Your task to perform on an android device: visit the assistant section in the google photos Image 0: 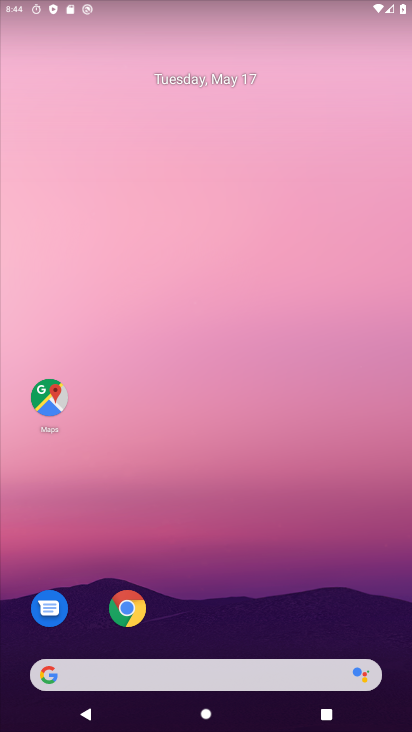
Step 0: drag from (288, 626) to (250, 167)
Your task to perform on an android device: visit the assistant section in the google photos Image 1: 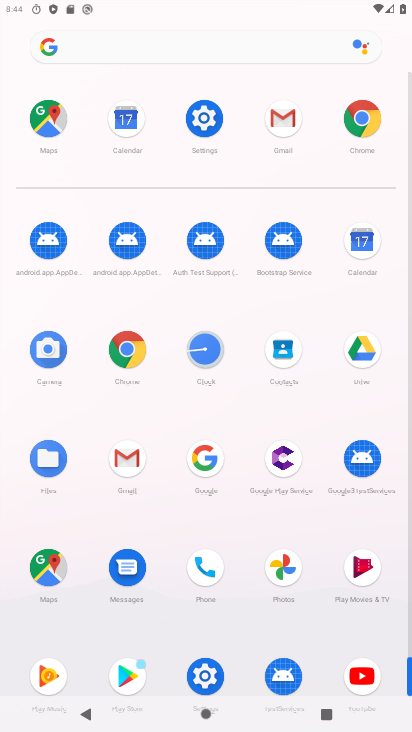
Step 1: click (286, 568)
Your task to perform on an android device: visit the assistant section in the google photos Image 2: 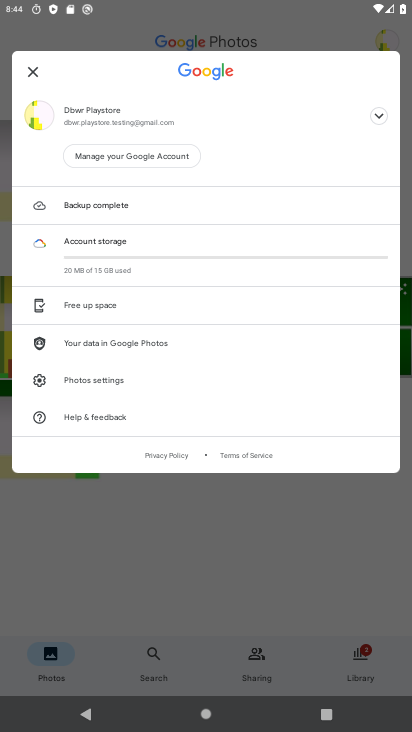
Step 2: click (25, 75)
Your task to perform on an android device: visit the assistant section in the google photos Image 3: 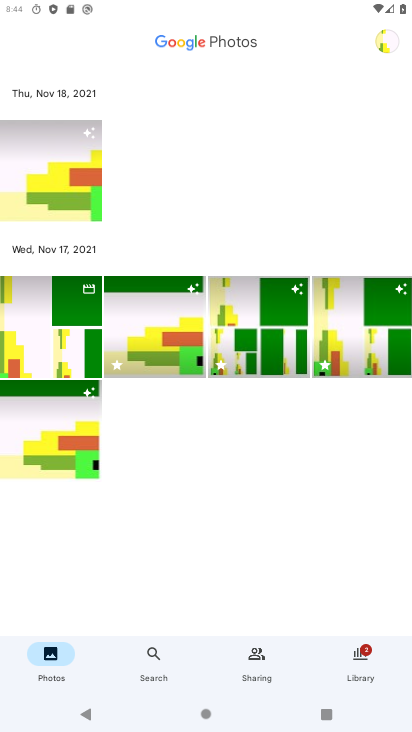
Step 3: click (376, 667)
Your task to perform on an android device: visit the assistant section in the google photos Image 4: 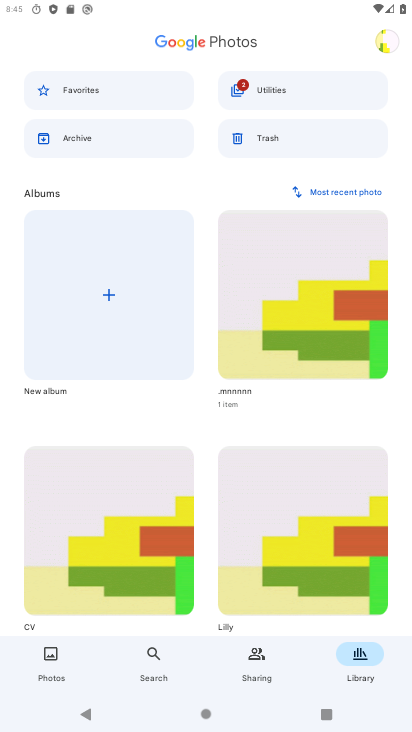
Step 4: click (152, 669)
Your task to perform on an android device: visit the assistant section in the google photos Image 5: 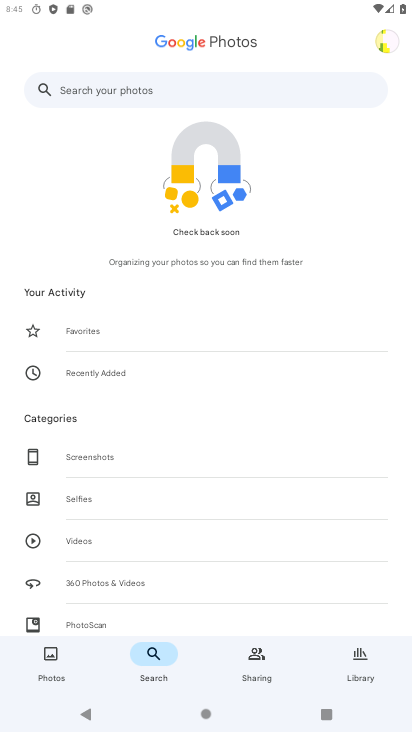
Step 5: click (138, 86)
Your task to perform on an android device: visit the assistant section in the google photos Image 6: 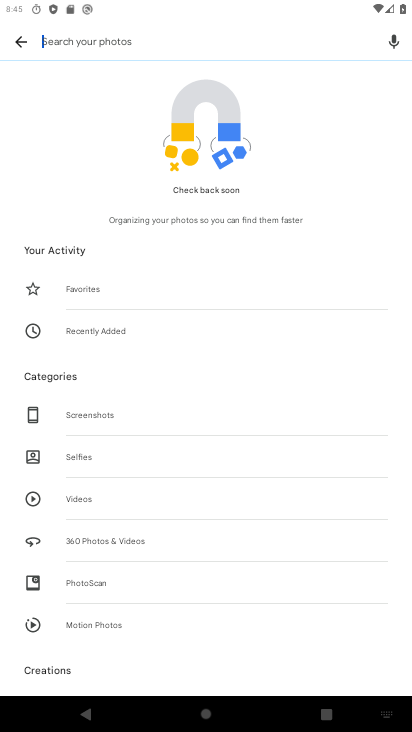
Step 6: type "assistant section"
Your task to perform on an android device: visit the assistant section in the google photos Image 7: 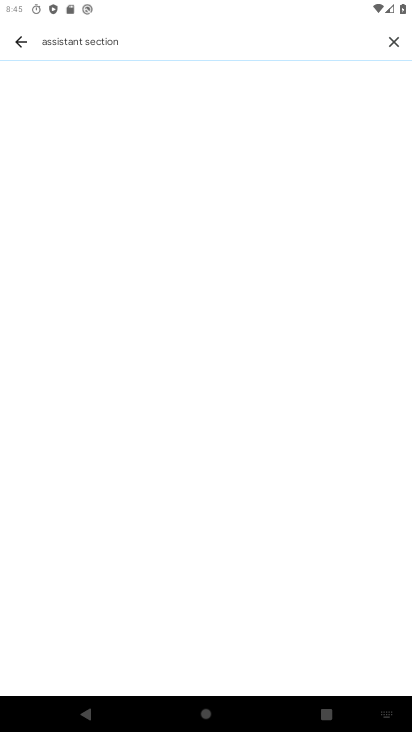
Step 7: task complete